Your task to perform on an android device: make emails show in primary in the gmail app Image 0: 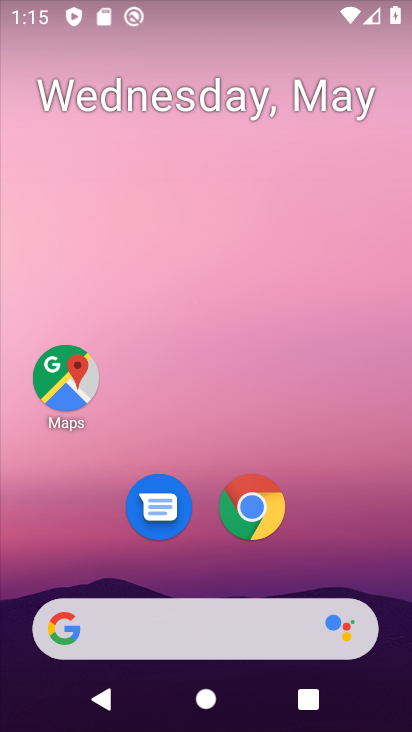
Step 0: drag from (380, 549) to (286, 223)
Your task to perform on an android device: make emails show in primary in the gmail app Image 1: 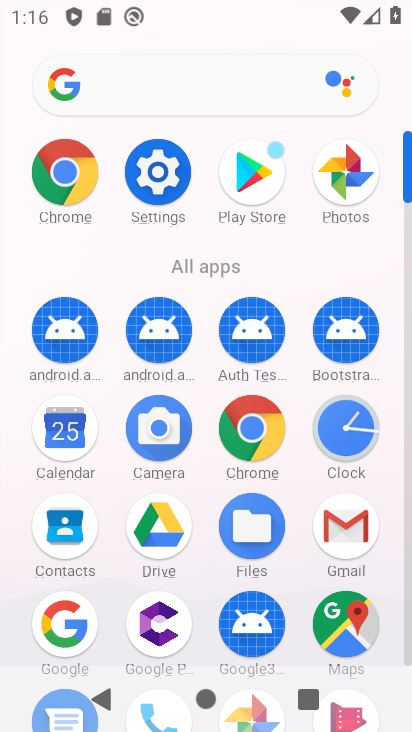
Step 1: press home button
Your task to perform on an android device: make emails show in primary in the gmail app Image 2: 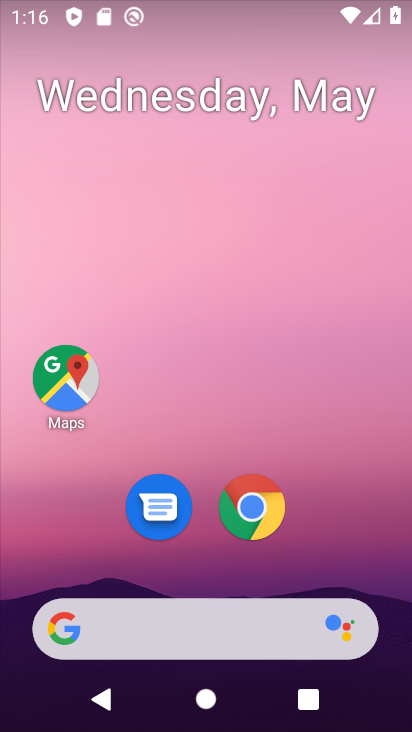
Step 2: drag from (363, 563) to (299, 78)
Your task to perform on an android device: make emails show in primary in the gmail app Image 3: 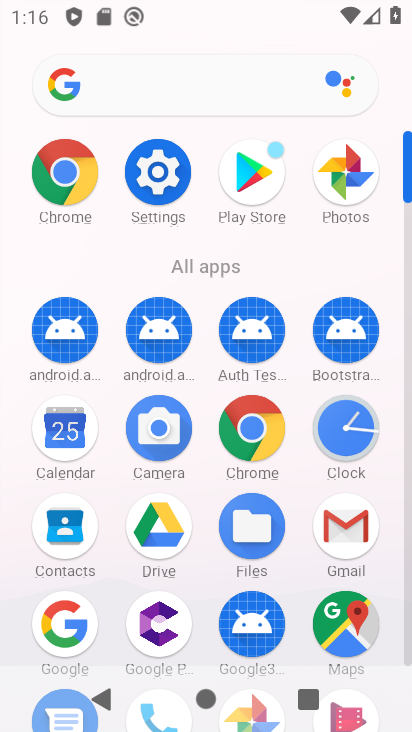
Step 3: click (353, 548)
Your task to perform on an android device: make emails show in primary in the gmail app Image 4: 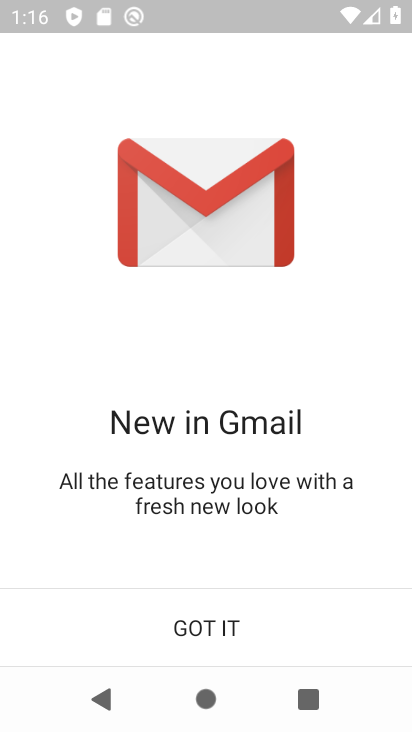
Step 4: click (198, 628)
Your task to perform on an android device: make emails show in primary in the gmail app Image 5: 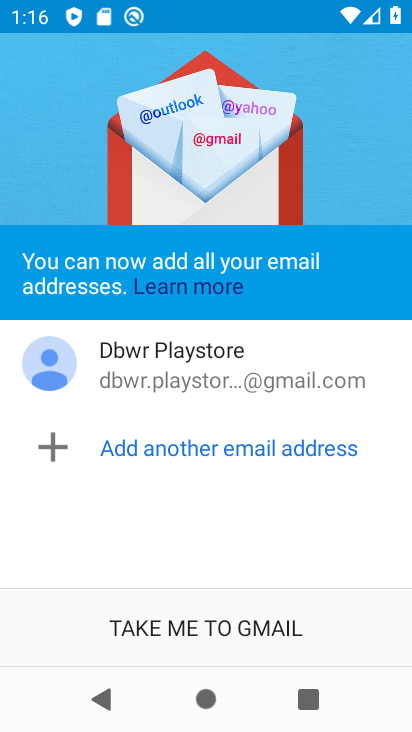
Step 5: click (198, 628)
Your task to perform on an android device: make emails show in primary in the gmail app Image 6: 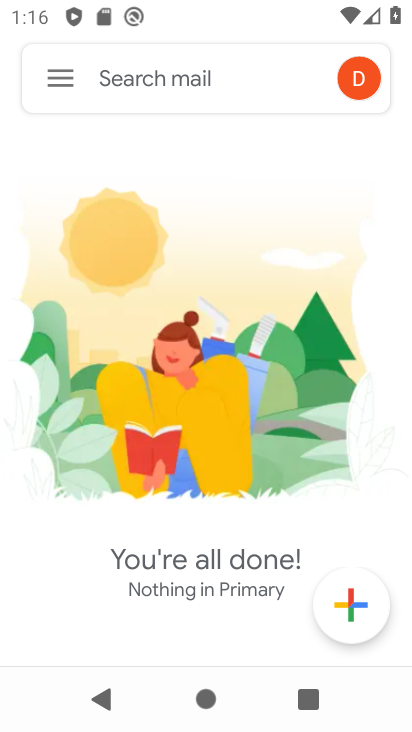
Step 6: click (69, 95)
Your task to perform on an android device: make emails show in primary in the gmail app Image 7: 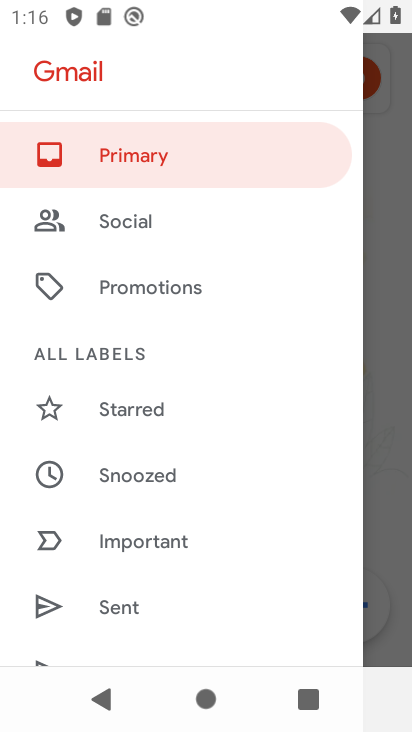
Step 7: drag from (181, 640) to (184, 94)
Your task to perform on an android device: make emails show in primary in the gmail app Image 8: 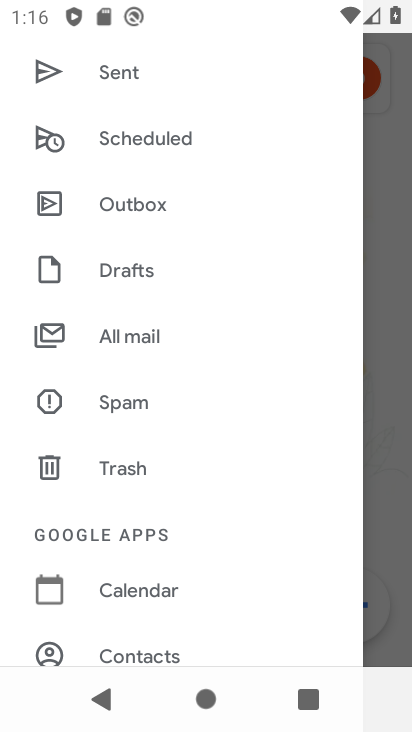
Step 8: drag from (136, 642) to (80, 170)
Your task to perform on an android device: make emails show in primary in the gmail app Image 9: 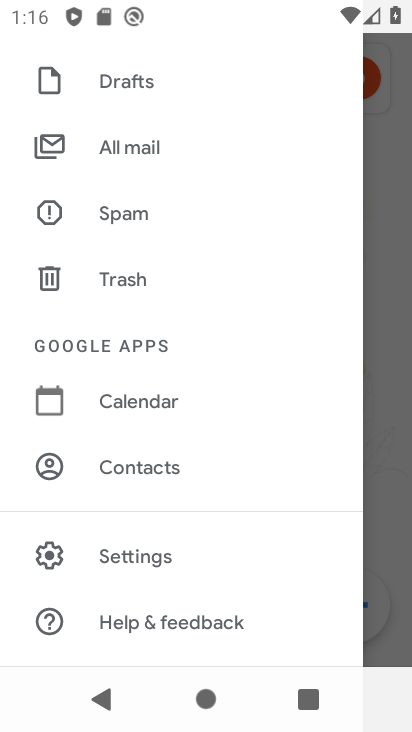
Step 9: click (141, 547)
Your task to perform on an android device: make emails show in primary in the gmail app Image 10: 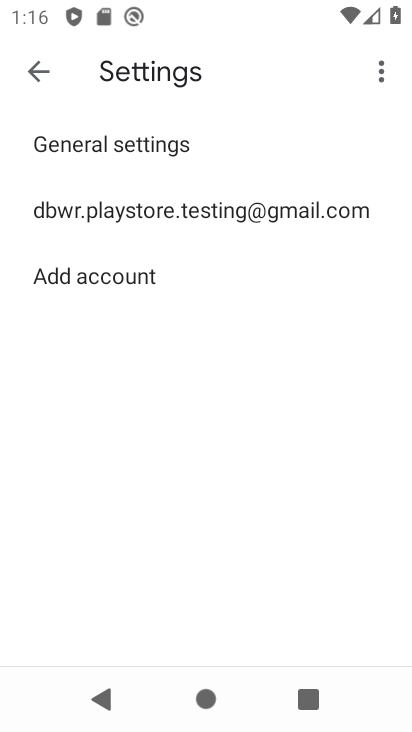
Step 10: click (271, 222)
Your task to perform on an android device: make emails show in primary in the gmail app Image 11: 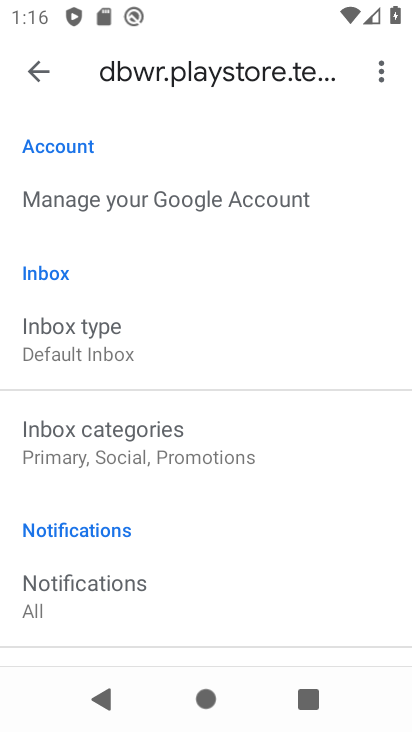
Step 11: click (184, 344)
Your task to perform on an android device: make emails show in primary in the gmail app Image 12: 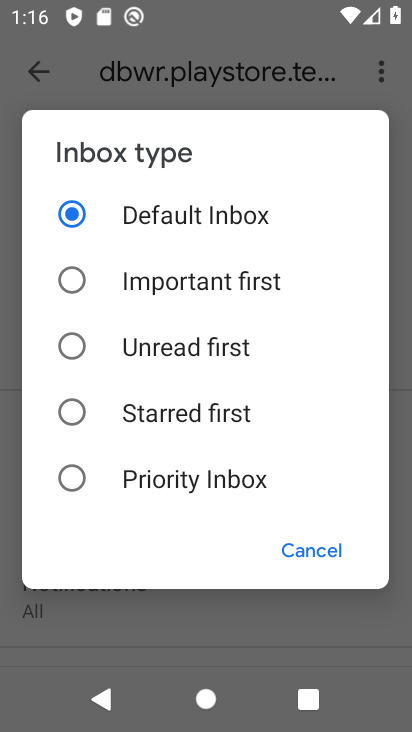
Step 12: task complete